Your task to perform on an android device: turn on showing notifications on the lock screen Image 0: 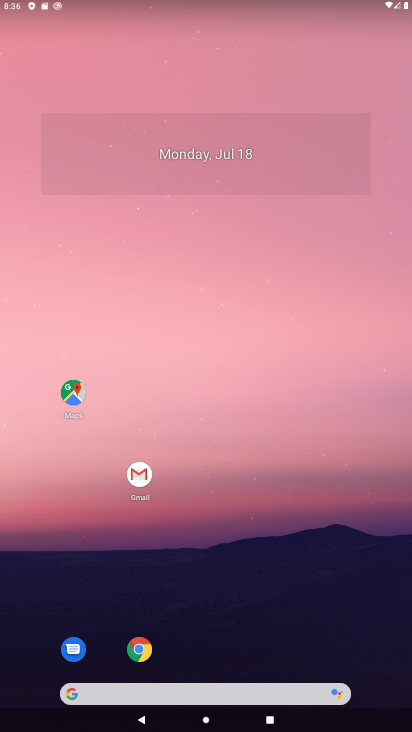
Step 0: drag from (286, 534) to (252, 161)
Your task to perform on an android device: turn on showing notifications on the lock screen Image 1: 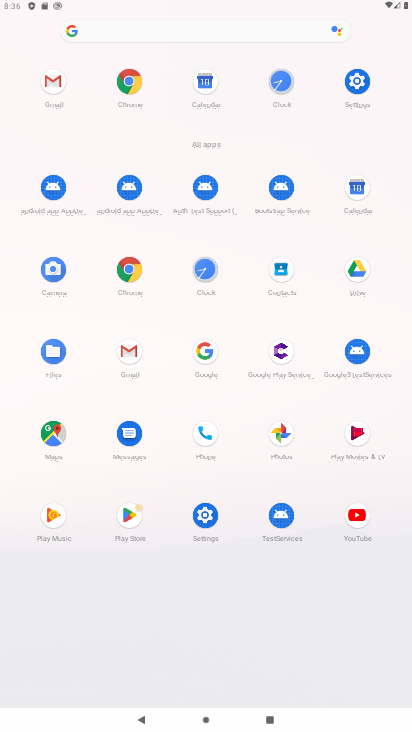
Step 1: click (204, 512)
Your task to perform on an android device: turn on showing notifications on the lock screen Image 2: 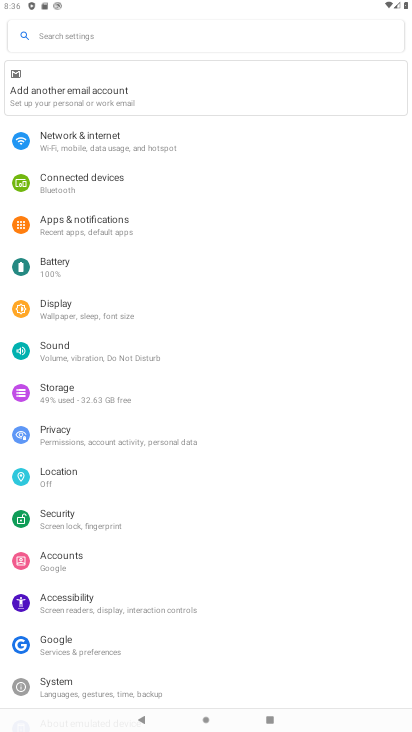
Step 2: click (108, 227)
Your task to perform on an android device: turn on showing notifications on the lock screen Image 3: 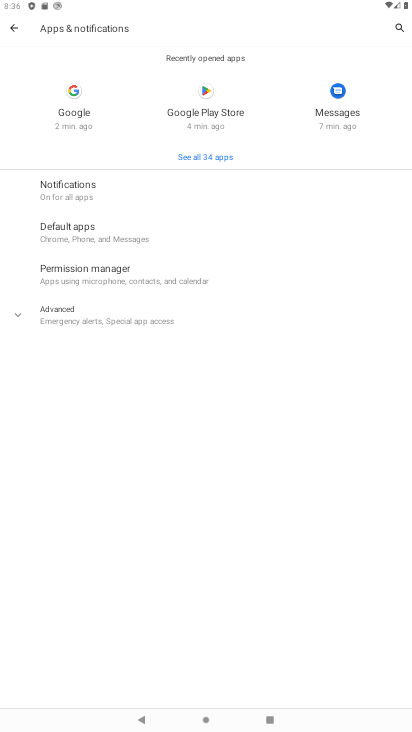
Step 3: task complete